Your task to perform on an android device: Open ESPN.com Image 0: 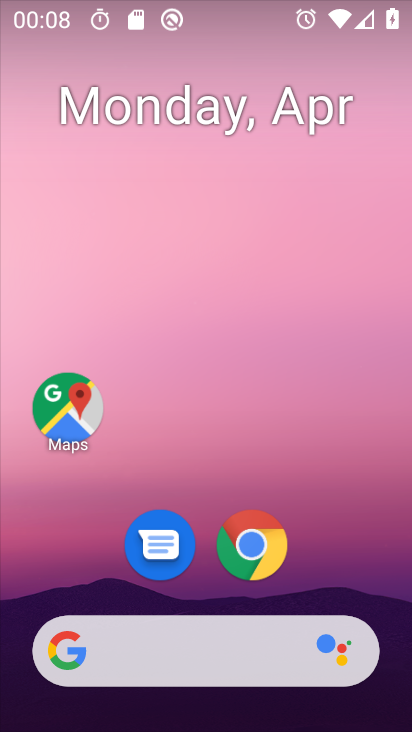
Step 0: drag from (327, 572) to (288, 225)
Your task to perform on an android device: Open ESPN.com Image 1: 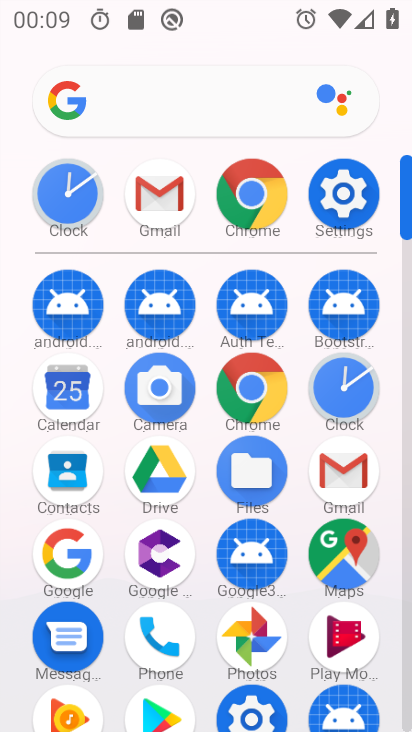
Step 1: click (249, 188)
Your task to perform on an android device: Open ESPN.com Image 2: 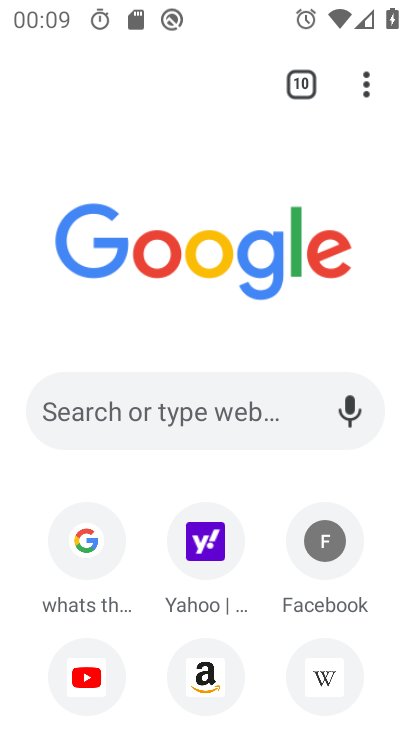
Step 2: click (207, 394)
Your task to perform on an android device: Open ESPN.com Image 3: 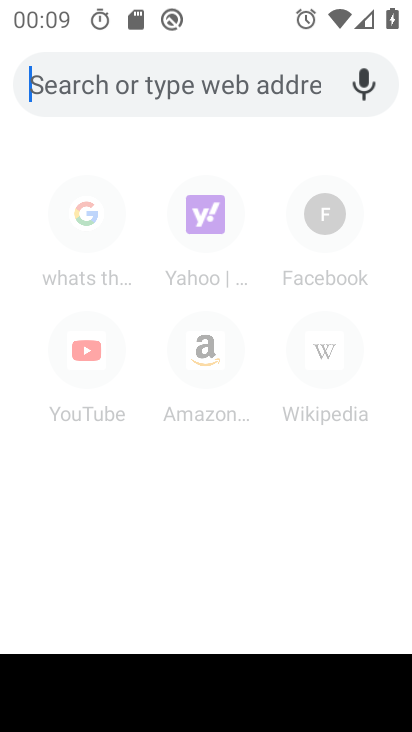
Step 3: click (198, 76)
Your task to perform on an android device: Open ESPN.com Image 4: 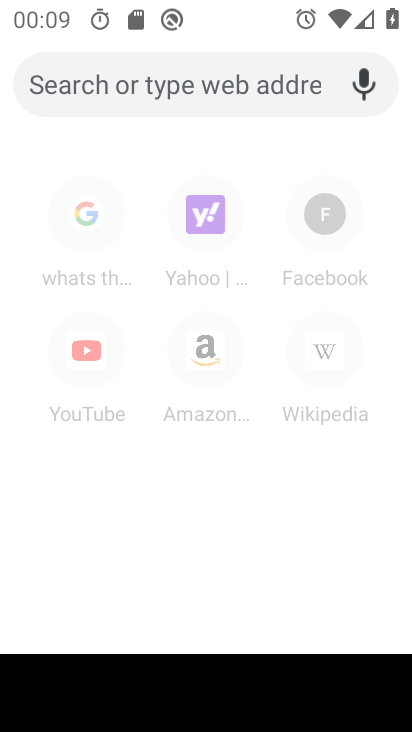
Step 4: type " ESPN.com"
Your task to perform on an android device: Open ESPN.com Image 5: 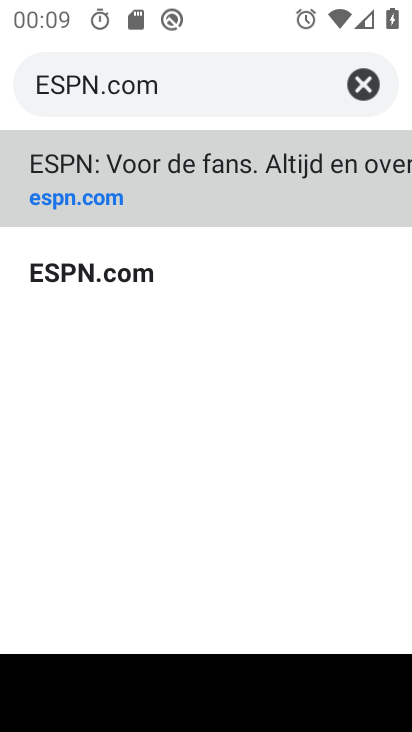
Step 5: click (133, 262)
Your task to perform on an android device: Open ESPN.com Image 6: 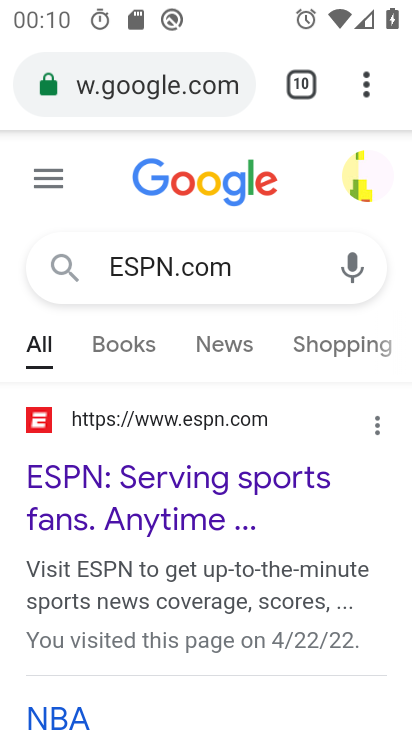
Step 6: task complete